Your task to perform on an android device: refresh tabs in the chrome app Image 0: 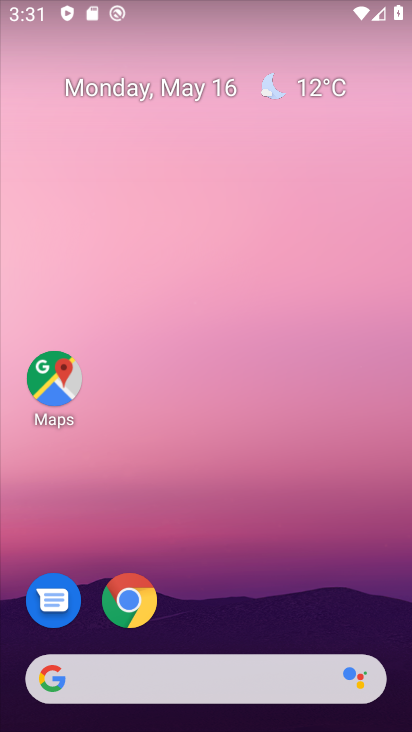
Step 0: click (133, 595)
Your task to perform on an android device: refresh tabs in the chrome app Image 1: 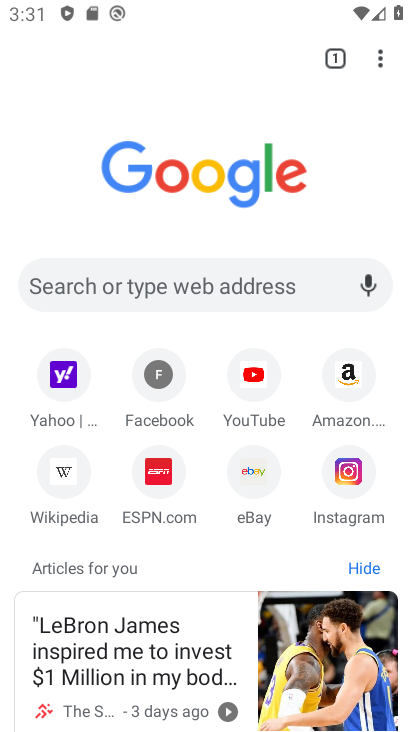
Step 1: click (383, 59)
Your task to perform on an android device: refresh tabs in the chrome app Image 2: 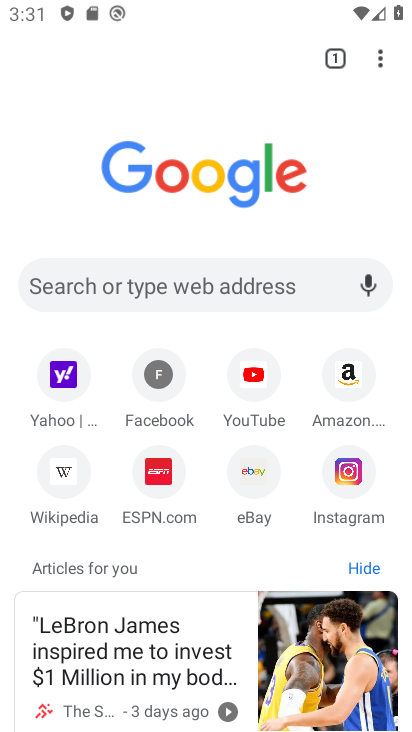
Step 2: click (387, 59)
Your task to perform on an android device: refresh tabs in the chrome app Image 3: 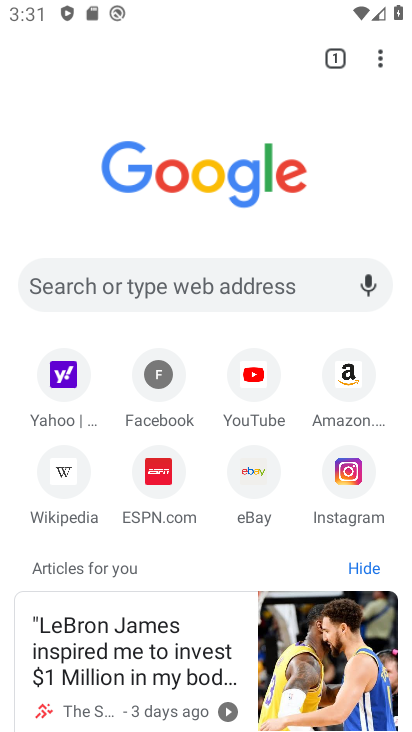
Step 3: click (373, 47)
Your task to perform on an android device: refresh tabs in the chrome app Image 4: 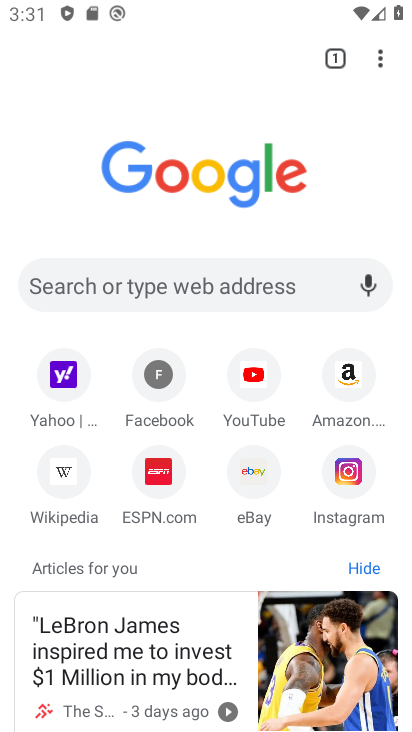
Step 4: click (375, 60)
Your task to perform on an android device: refresh tabs in the chrome app Image 5: 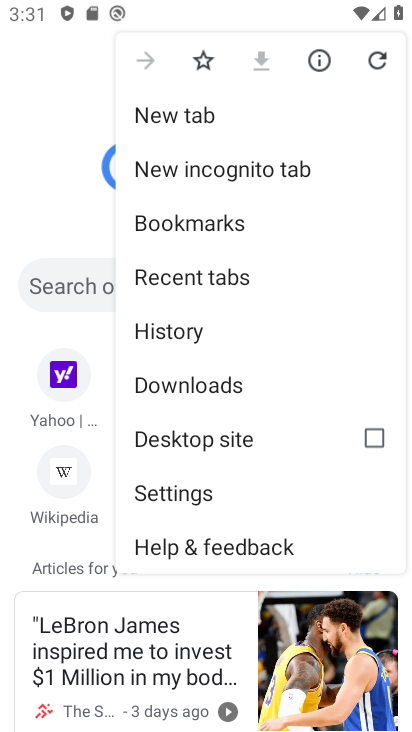
Step 5: click (375, 60)
Your task to perform on an android device: refresh tabs in the chrome app Image 6: 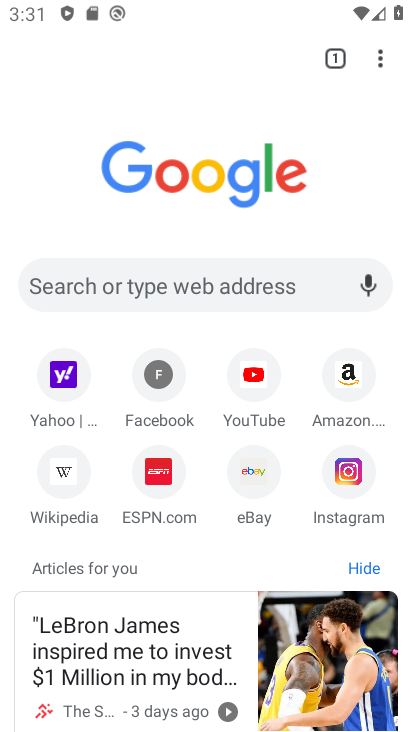
Step 6: task complete